Your task to perform on an android device: see sites visited before in the chrome app Image 0: 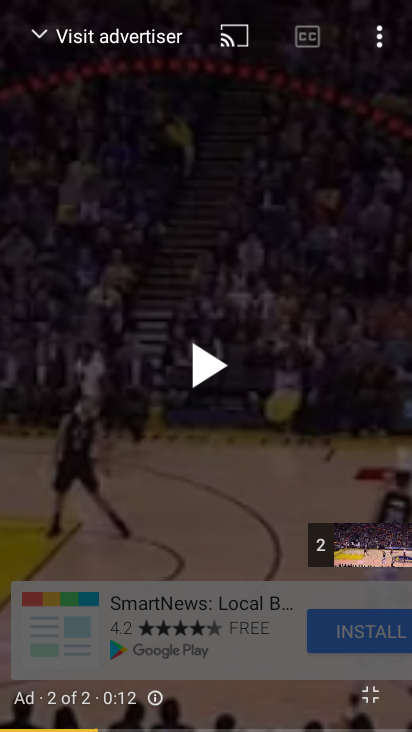
Step 0: press home button
Your task to perform on an android device: see sites visited before in the chrome app Image 1: 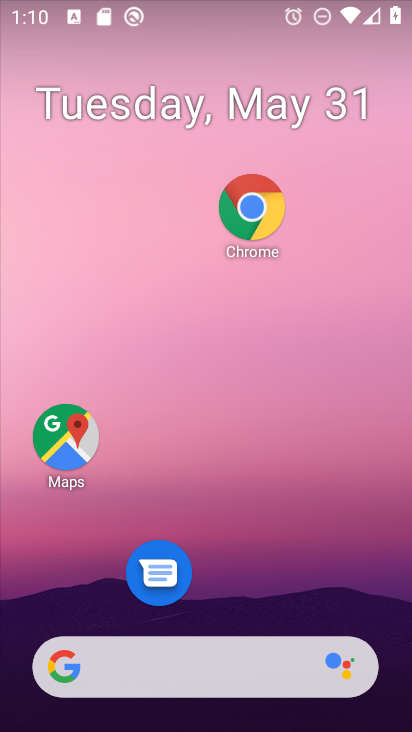
Step 1: click (249, 223)
Your task to perform on an android device: see sites visited before in the chrome app Image 2: 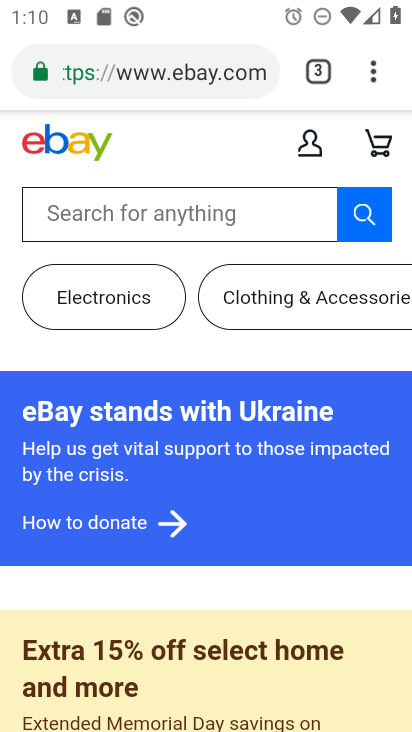
Step 2: click (371, 70)
Your task to perform on an android device: see sites visited before in the chrome app Image 3: 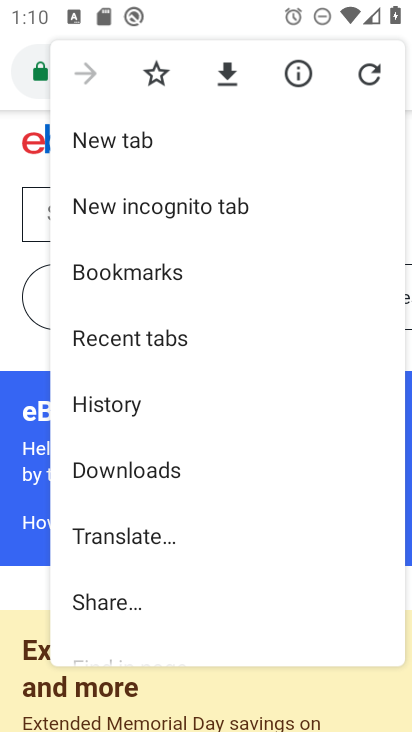
Step 3: click (127, 401)
Your task to perform on an android device: see sites visited before in the chrome app Image 4: 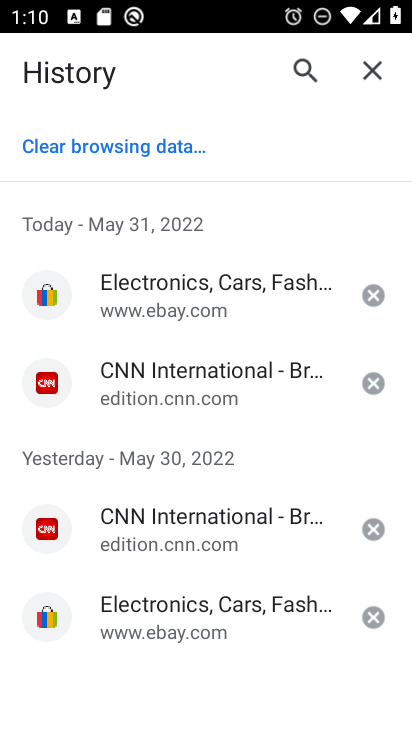
Step 4: task complete